Your task to perform on an android device: Empty the shopping cart on amazon. Add "razer blade" to the cart on amazon Image 0: 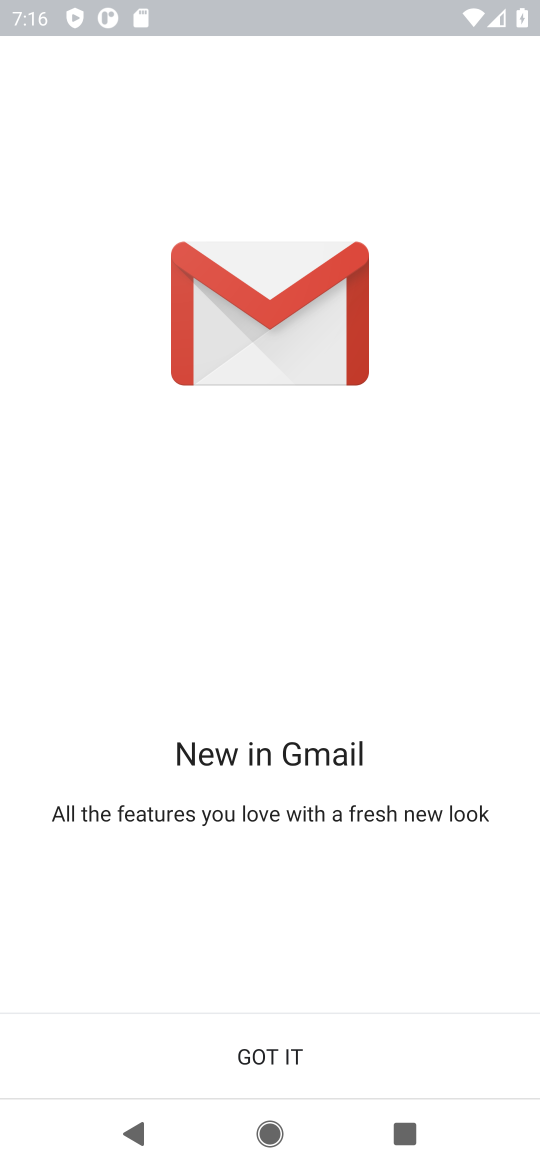
Step 0: press home button
Your task to perform on an android device: Empty the shopping cart on amazon. Add "razer blade" to the cart on amazon Image 1: 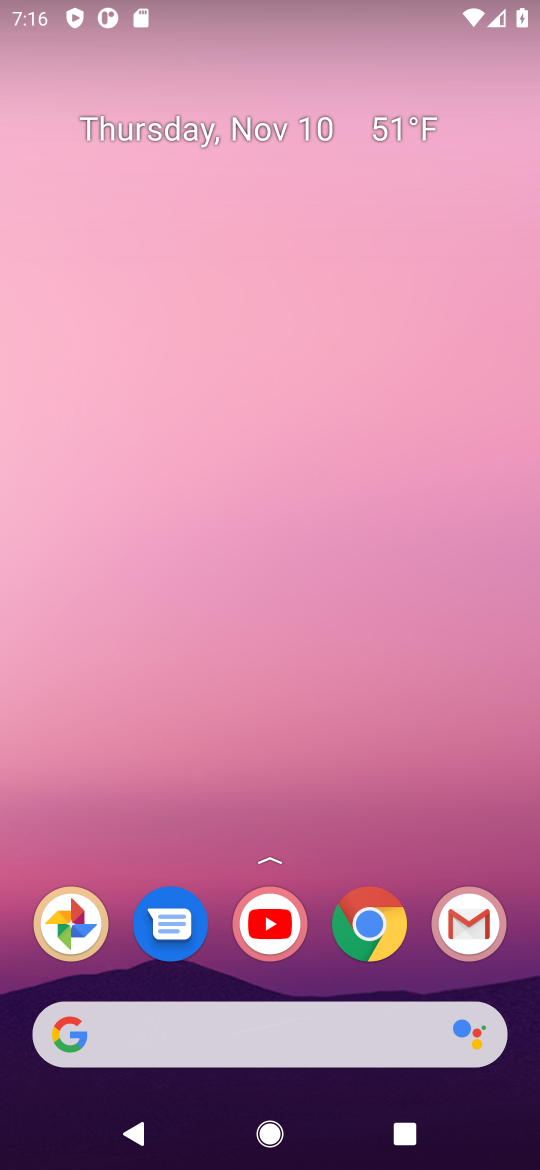
Step 1: click (360, 925)
Your task to perform on an android device: Empty the shopping cart on amazon. Add "razer blade" to the cart on amazon Image 2: 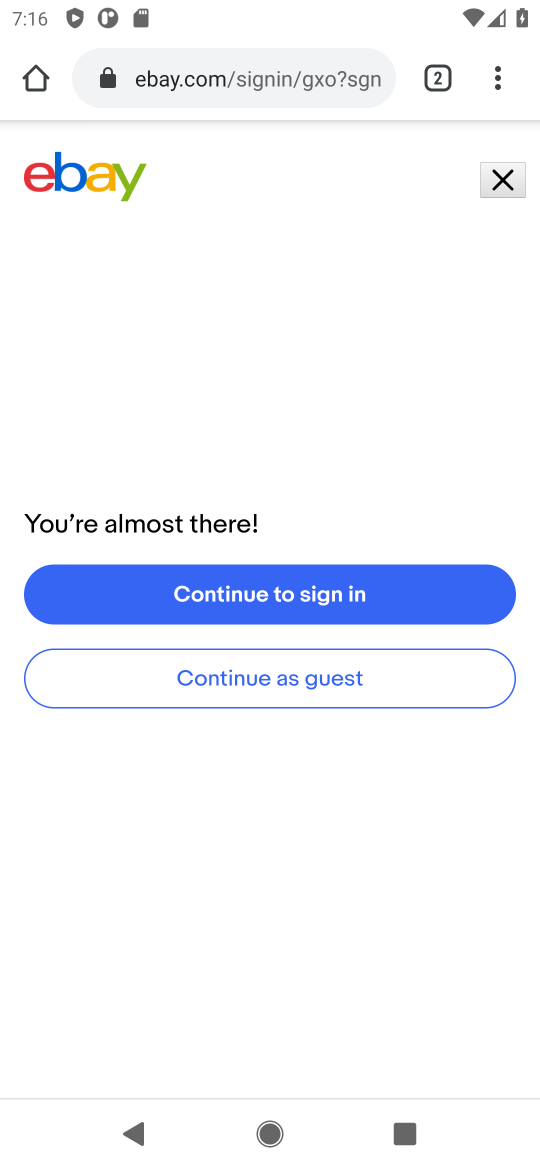
Step 2: click (215, 77)
Your task to perform on an android device: Empty the shopping cart on amazon. Add "razer blade" to the cart on amazon Image 3: 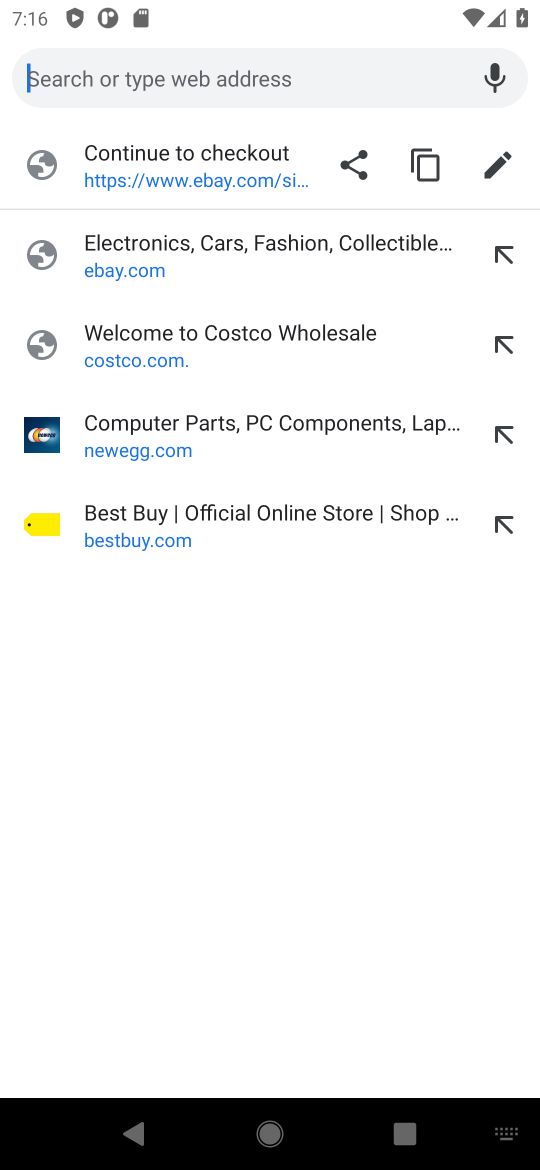
Step 3: type "amazon.com"
Your task to perform on an android device: Empty the shopping cart on amazon. Add "razer blade" to the cart on amazon Image 4: 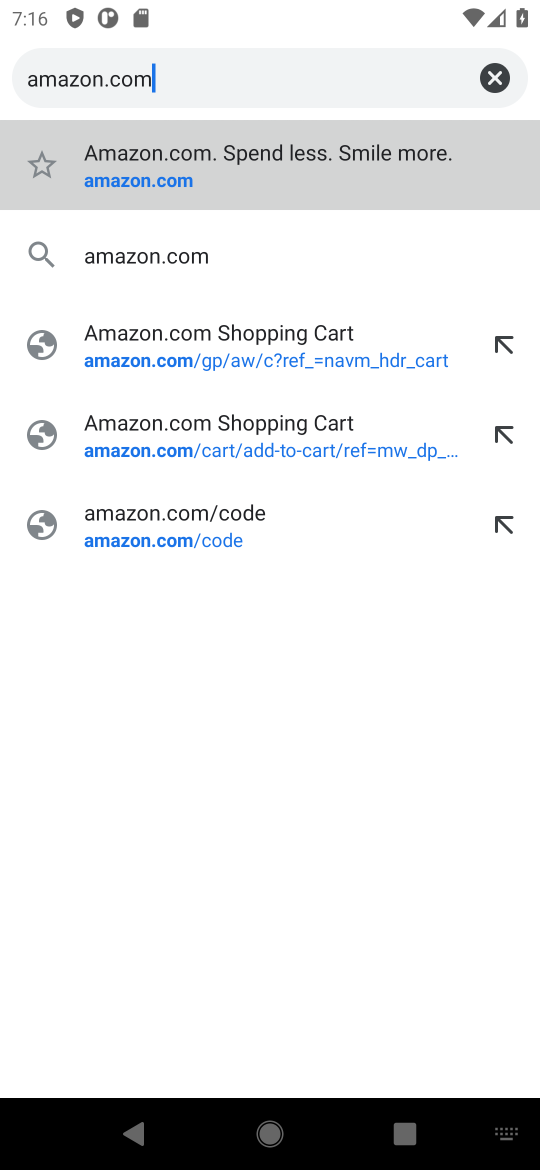
Step 4: click (129, 340)
Your task to perform on an android device: Empty the shopping cart on amazon. Add "razer blade" to the cart on amazon Image 5: 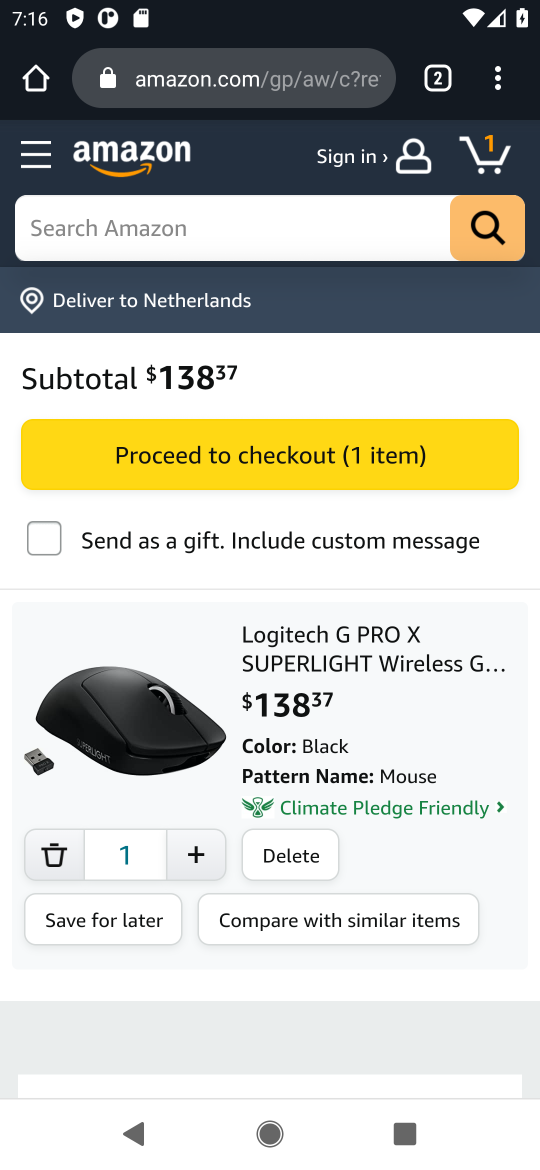
Step 5: click (57, 846)
Your task to perform on an android device: Empty the shopping cart on amazon. Add "razer blade" to the cart on amazon Image 6: 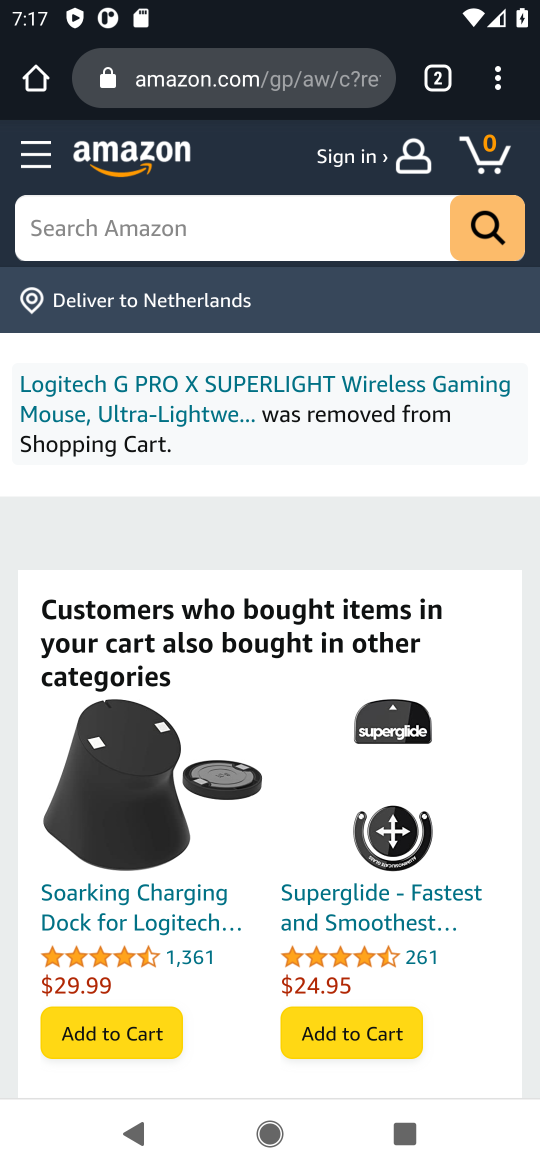
Step 6: click (245, 253)
Your task to perform on an android device: Empty the shopping cart on amazon. Add "razer blade" to the cart on amazon Image 7: 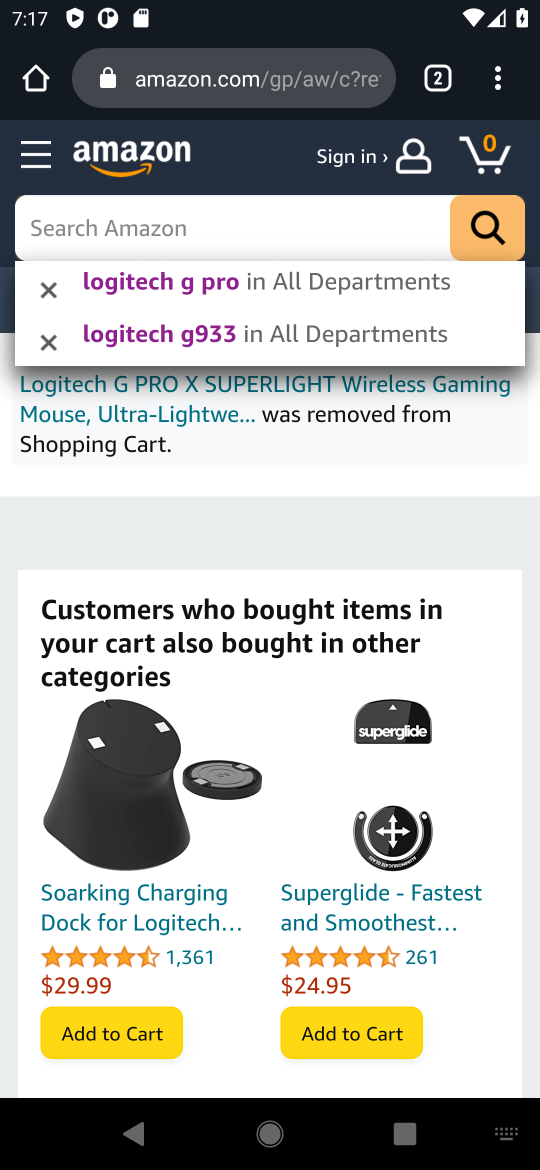
Step 7: type "razer blade"
Your task to perform on an android device: Empty the shopping cart on amazon. Add "razer blade" to the cart on amazon Image 8: 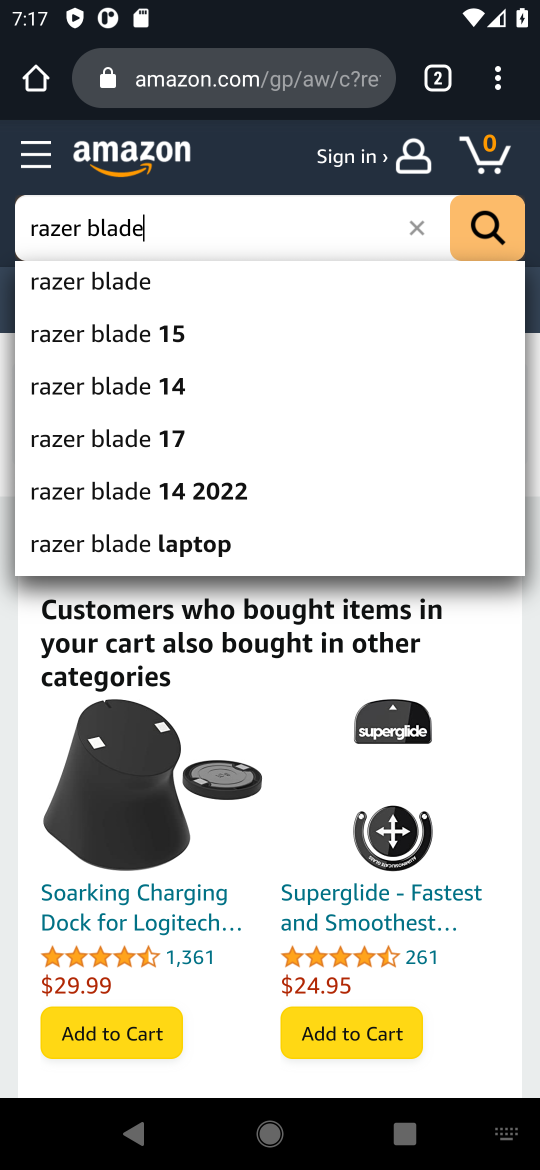
Step 8: click (116, 278)
Your task to perform on an android device: Empty the shopping cart on amazon. Add "razer blade" to the cart on amazon Image 9: 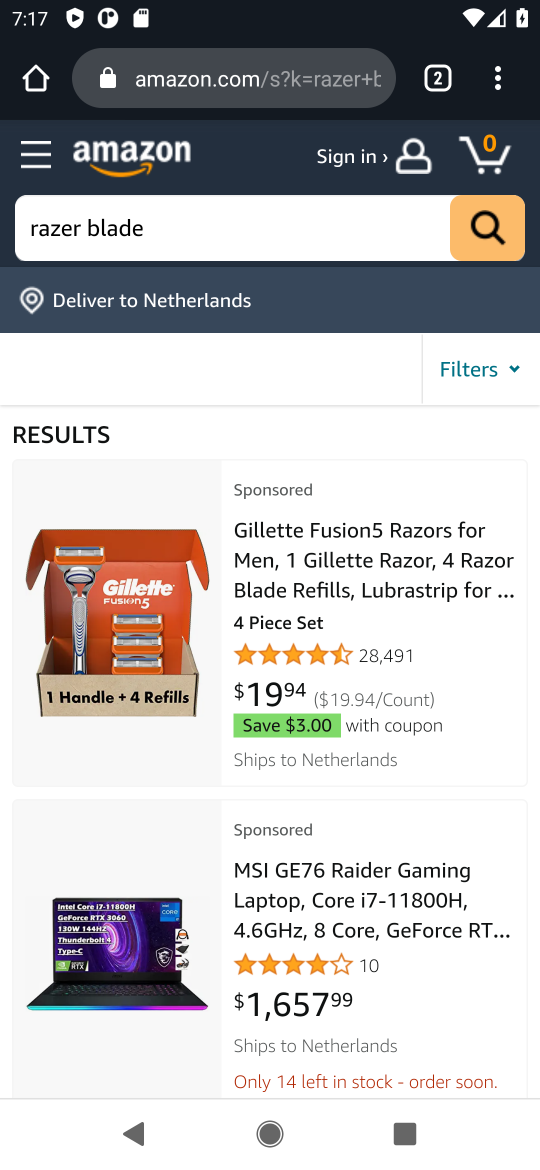
Step 9: drag from (223, 821) to (232, 706)
Your task to perform on an android device: Empty the shopping cart on amazon. Add "razer blade" to the cart on amazon Image 10: 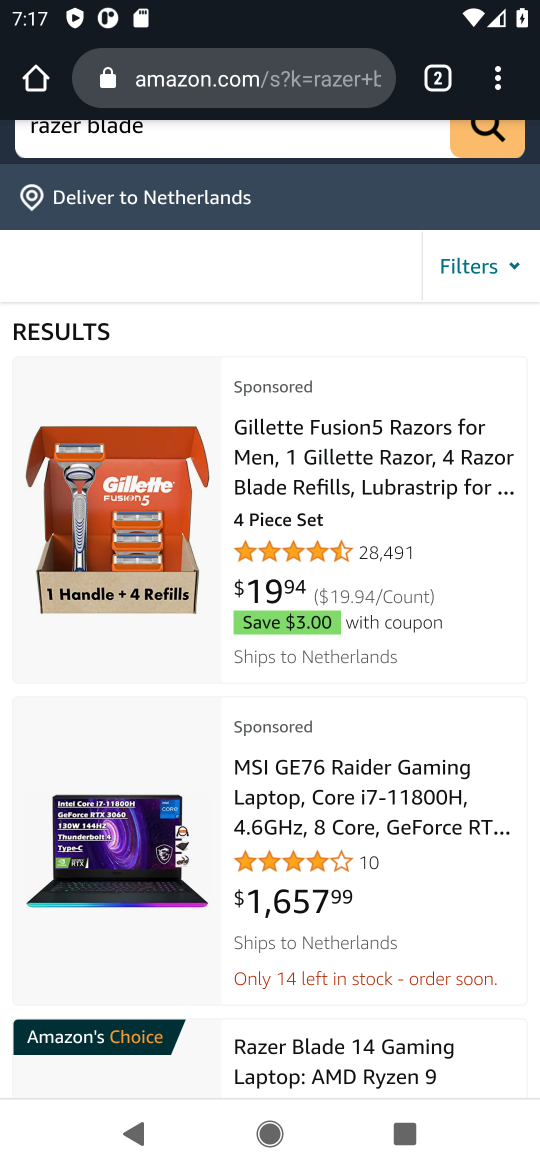
Step 10: drag from (172, 856) to (106, 380)
Your task to perform on an android device: Empty the shopping cart on amazon. Add "razer blade" to the cart on amazon Image 11: 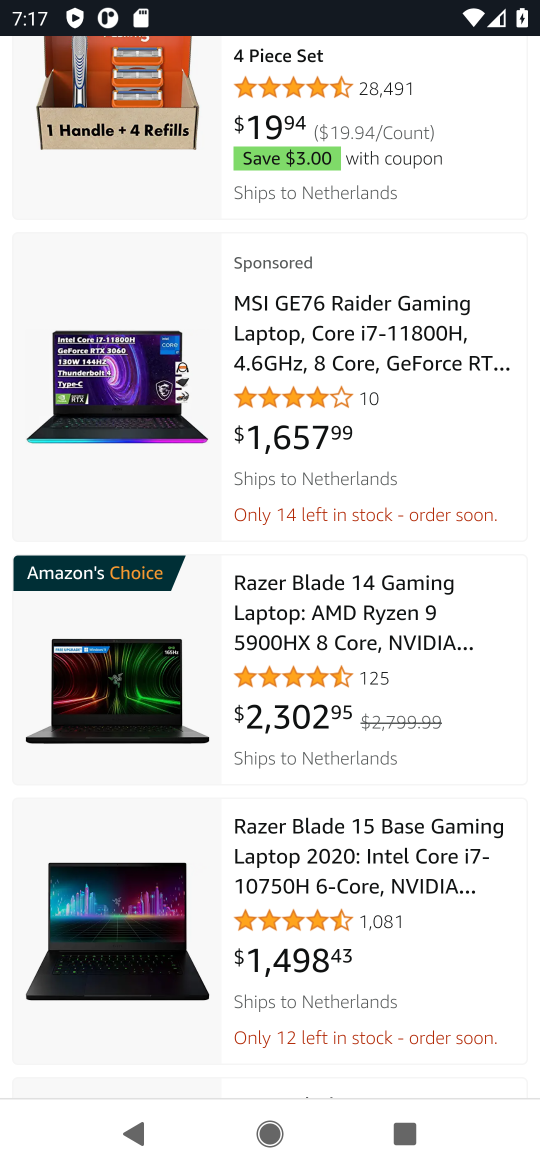
Step 11: click (105, 716)
Your task to perform on an android device: Empty the shopping cart on amazon. Add "razer blade" to the cart on amazon Image 12: 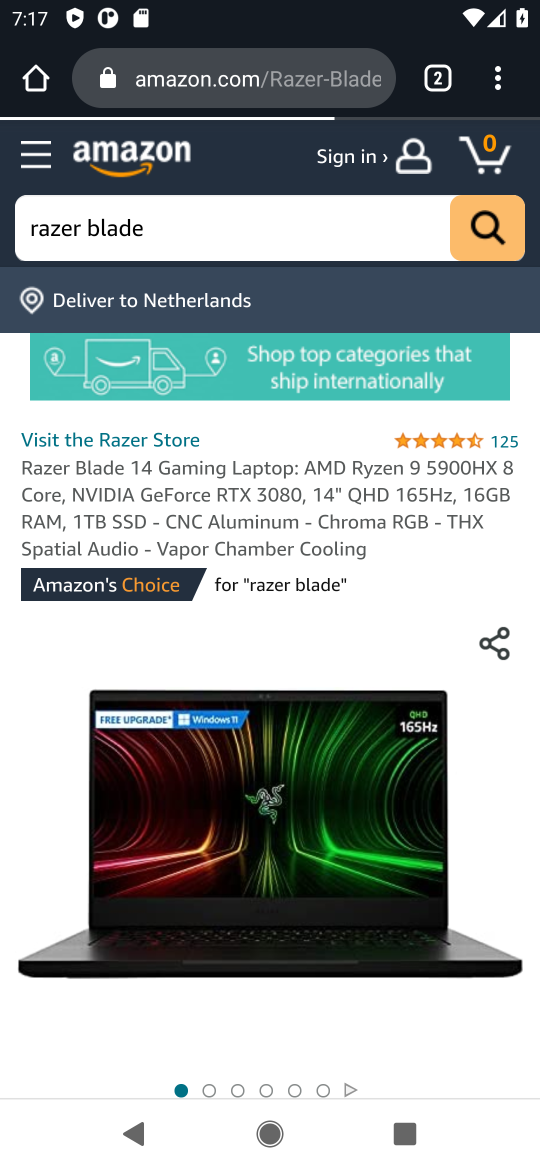
Step 12: drag from (235, 800) to (242, 543)
Your task to perform on an android device: Empty the shopping cart on amazon. Add "razer blade" to the cart on amazon Image 13: 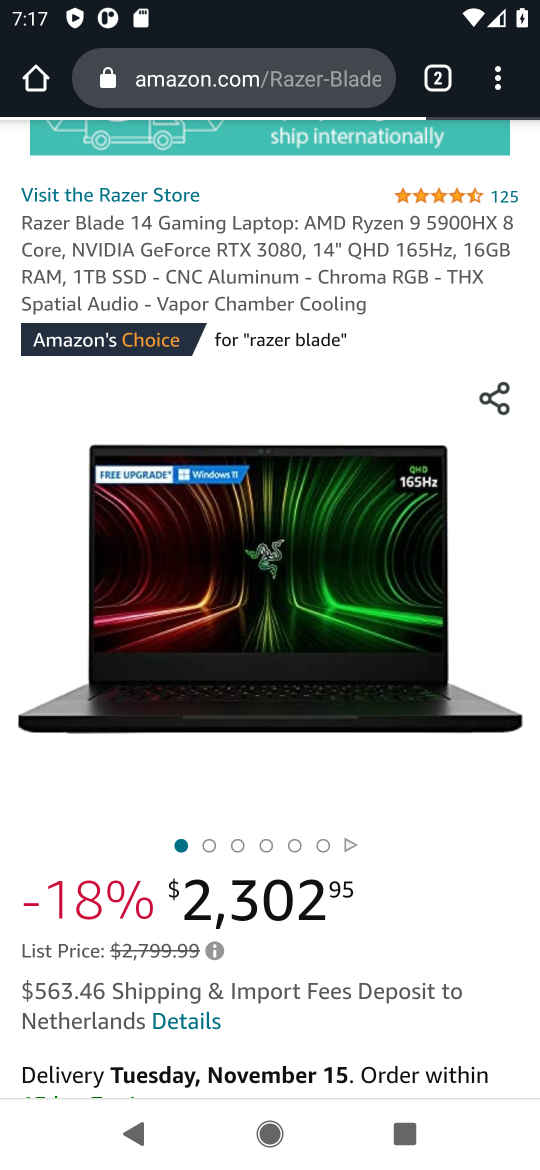
Step 13: drag from (256, 927) to (260, 574)
Your task to perform on an android device: Empty the shopping cart on amazon. Add "razer blade" to the cart on amazon Image 14: 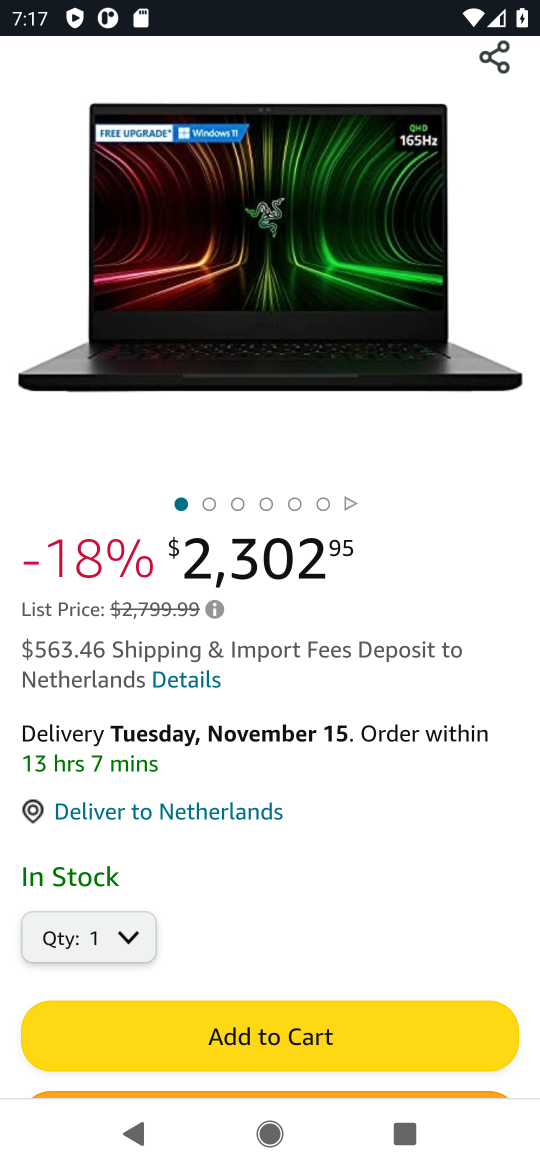
Step 14: click (284, 1025)
Your task to perform on an android device: Empty the shopping cart on amazon. Add "razer blade" to the cart on amazon Image 15: 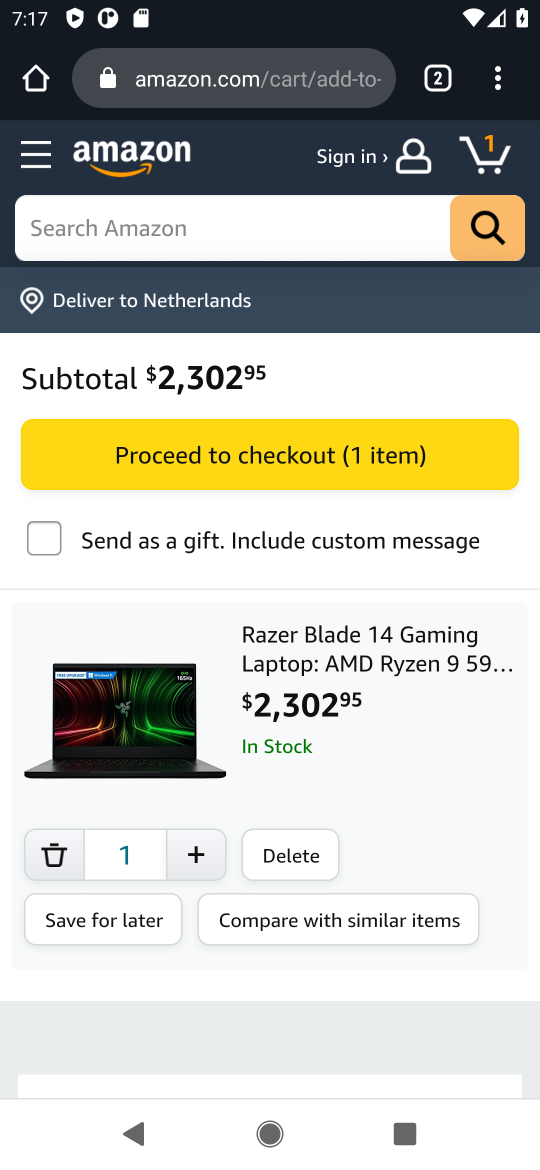
Step 15: task complete